Your task to perform on an android device: refresh tabs in the chrome app Image 0: 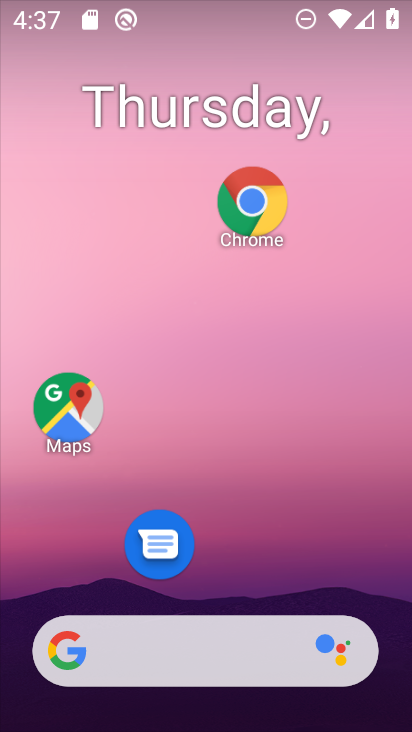
Step 0: click (251, 226)
Your task to perform on an android device: refresh tabs in the chrome app Image 1: 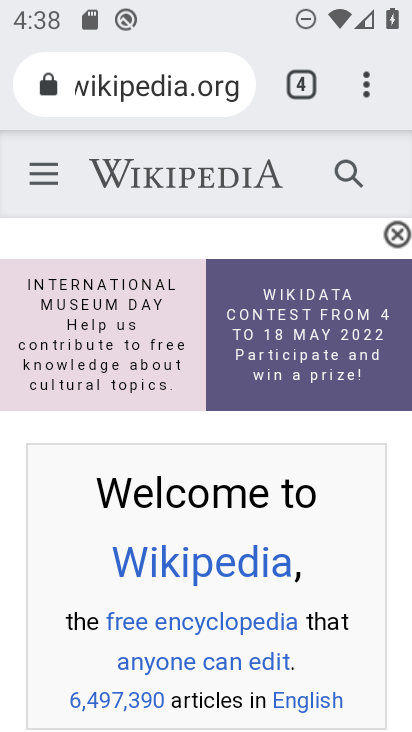
Step 1: click (356, 86)
Your task to perform on an android device: refresh tabs in the chrome app Image 2: 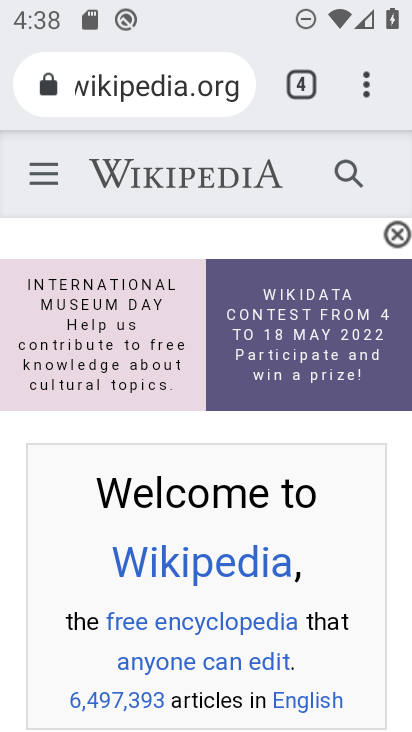
Step 2: click (370, 87)
Your task to perform on an android device: refresh tabs in the chrome app Image 3: 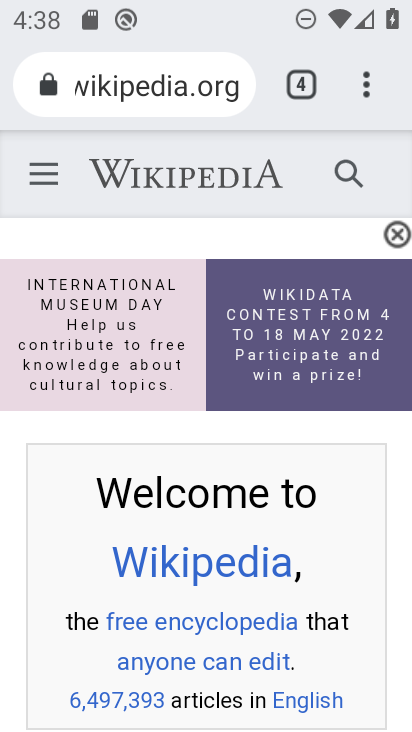
Step 3: click (364, 90)
Your task to perform on an android device: refresh tabs in the chrome app Image 4: 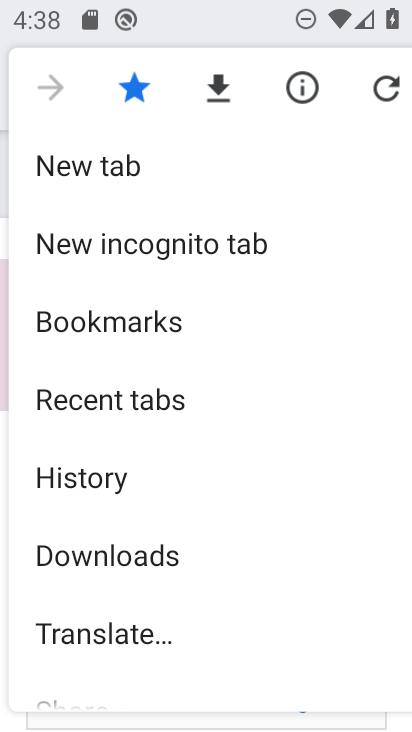
Step 4: task complete